Your task to perform on an android device: see creations saved in the google photos Image 0: 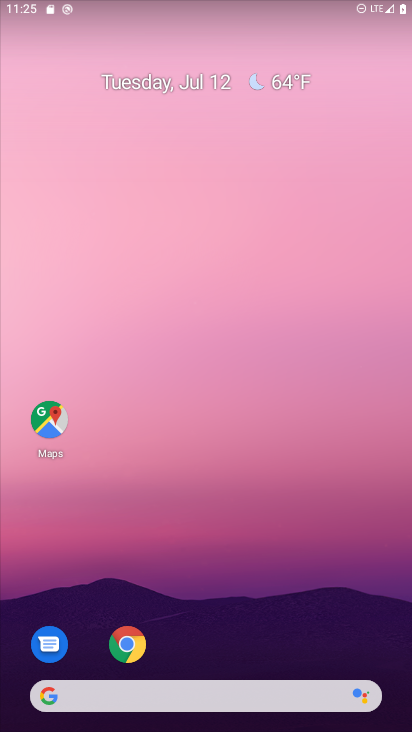
Step 0: drag from (308, 661) to (281, 228)
Your task to perform on an android device: see creations saved in the google photos Image 1: 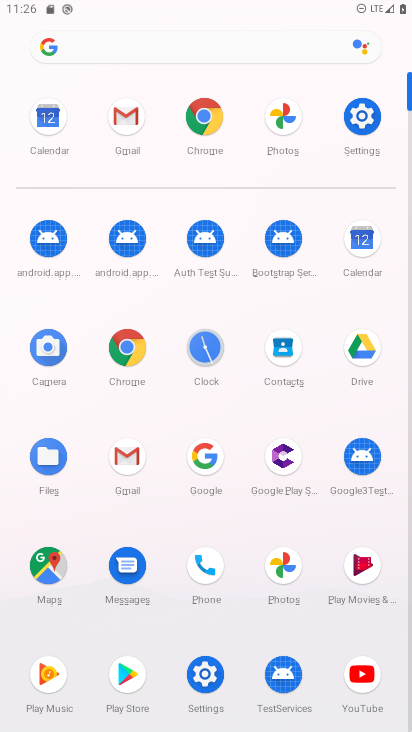
Step 1: click (288, 138)
Your task to perform on an android device: see creations saved in the google photos Image 2: 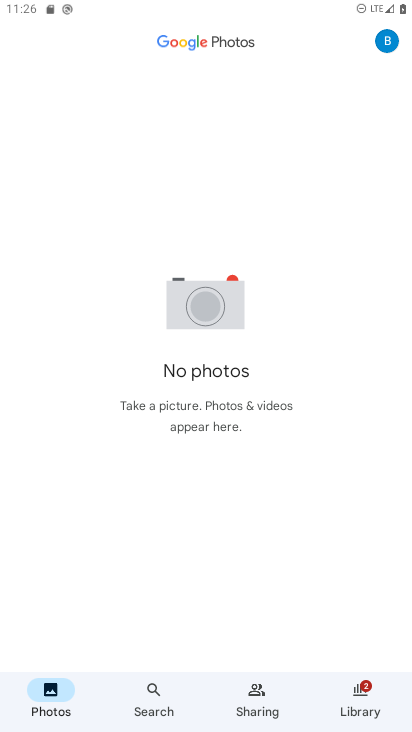
Step 2: task complete